Your task to perform on an android device: Open the web browser Image 0: 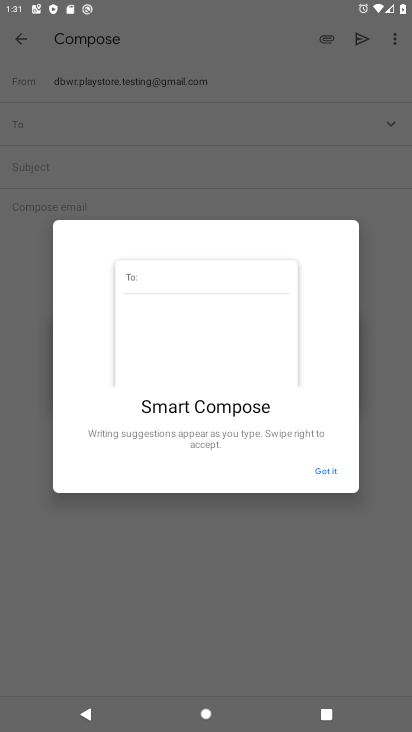
Step 0: press home button
Your task to perform on an android device: Open the web browser Image 1: 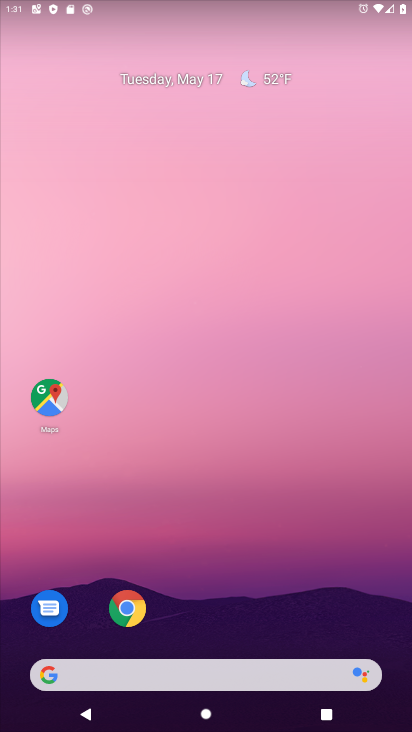
Step 1: click (211, 675)
Your task to perform on an android device: Open the web browser Image 2: 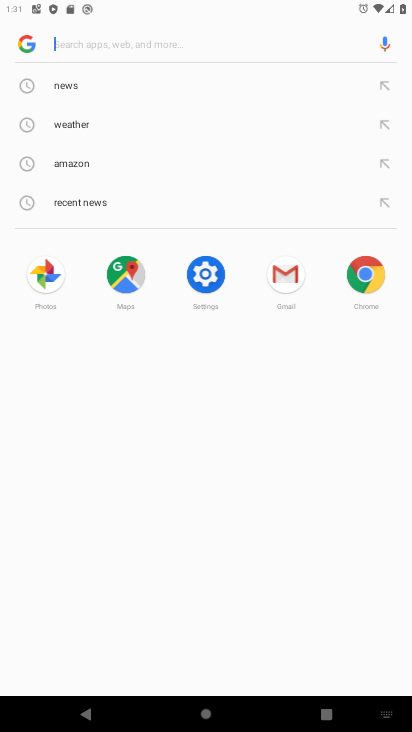
Step 2: task complete